Your task to perform on an android device: Open the calendar app, open the side menu, and click the "Day" option Image 0: 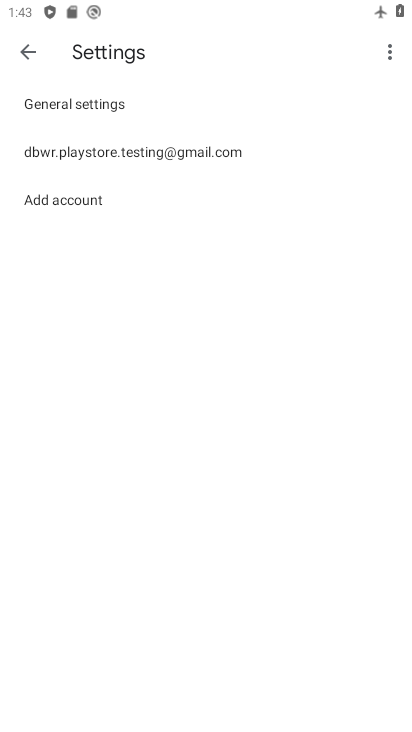
Step 0: press back button
Your task to perform on an android device: Open the calendar app, open the side menu, and click the "Day" option Image 1: 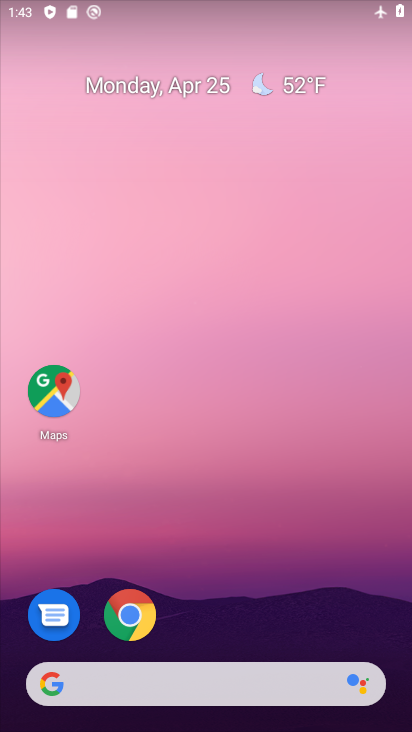
Step 1: drag from (199, 506) to (205, 73)
Your task to perform on an android device: Open the calendar app, open the side menu, and click the "Day" option Image 2: 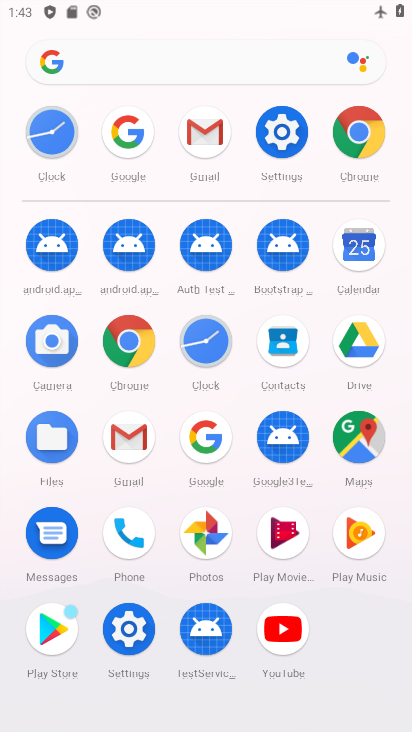
Step 2: click (364, 248)
Your task to perform on an android device: Open the calendar app, open the side menu, and click the "Day" option Image 3: 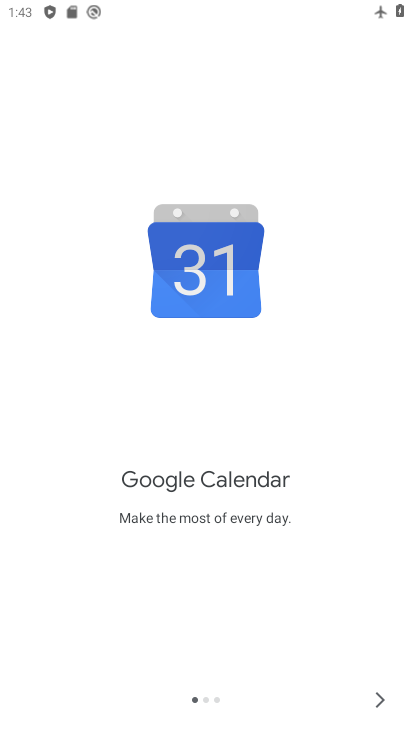
Step 3: click (379, 699)
Your task to perform on an android device: Open the calendar app, open the side menu, and click the "Day" option Image 4: 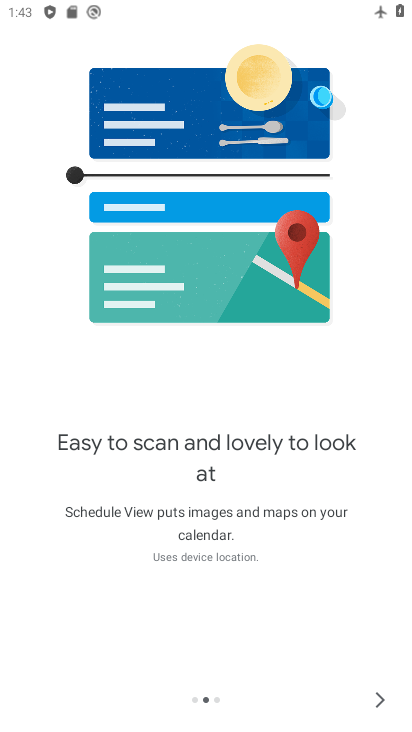
Step 4: click (379, 699)
Your task to perform on an android device: Open the calendar app, open the side menu, and click the "Day" option Image 5: 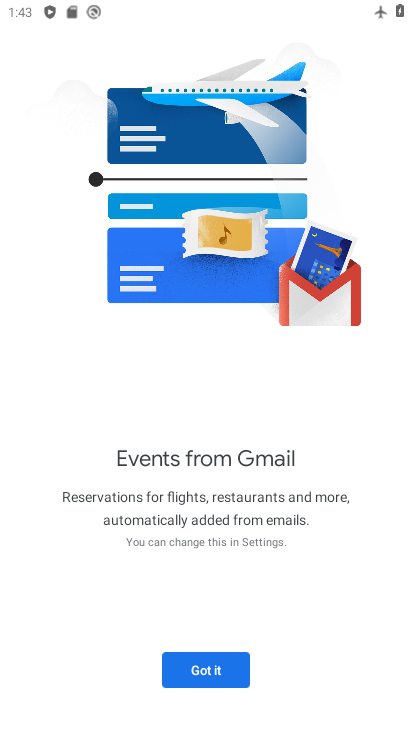
Step 5: click (213, 670)
Your task to perform on an android device: Open the calendar app, open the side menu, and click the "Day" option Image 6: 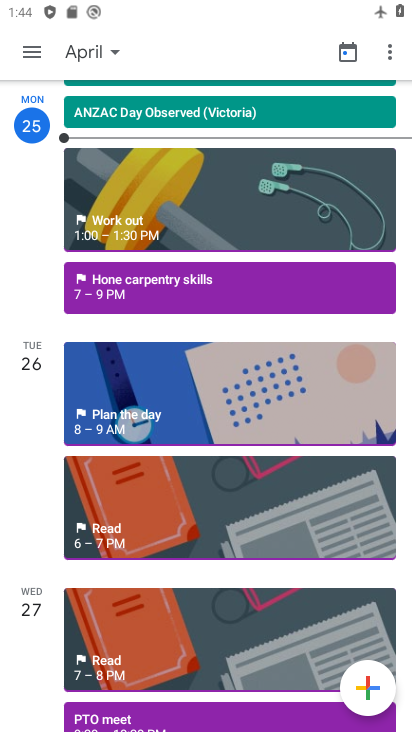
Step 6: click (33, 50)
Your task to perform on an android device: Open the calendar app, open the side menu, and click the "Day" option Image 7: 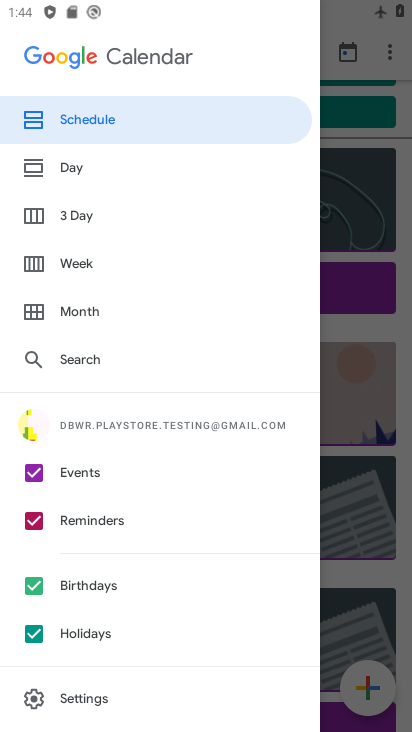
Step 7: click (61, 166)
Your task to perform on an android device: Open the calendar app, open the side menu, and click the "Day" option Image 8: 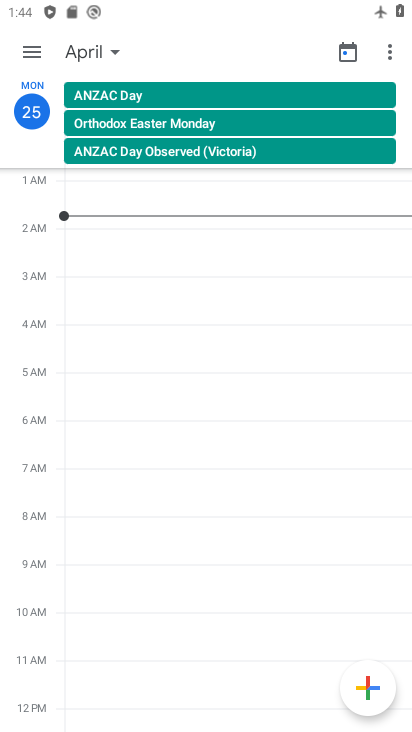
Step 8: task complete